Your task to perform on an android device: make emails show in primary in the gmail app Image 0: 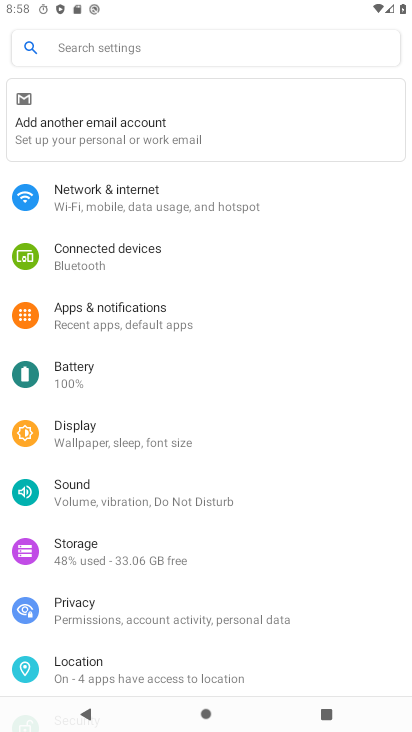
Step 0: press home button
Your task to perform on an android device: make emails show in primary in the gmail app Image 1: 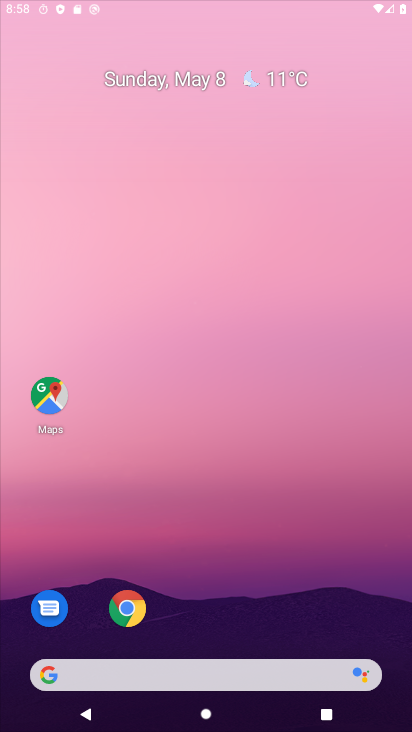
Step 1: drag from (259, 669) to (192, 70)
Your task to perform on an android device: make emails show in primary in the gmail app Image 2: 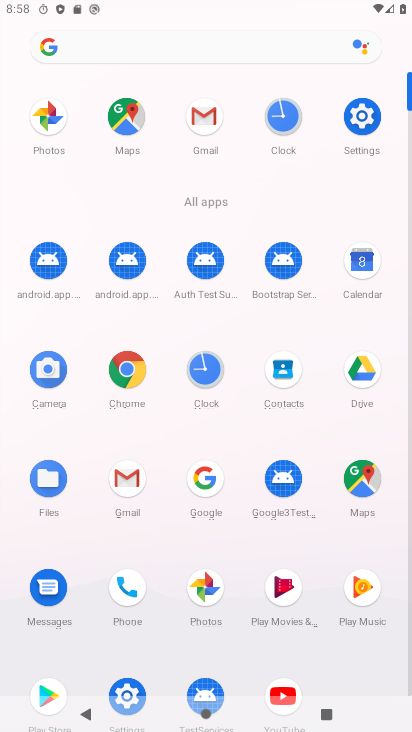
Step 2: click (132, 486)
Your task to perform on an android device: make emails show in primary in the gmail app Image 3: 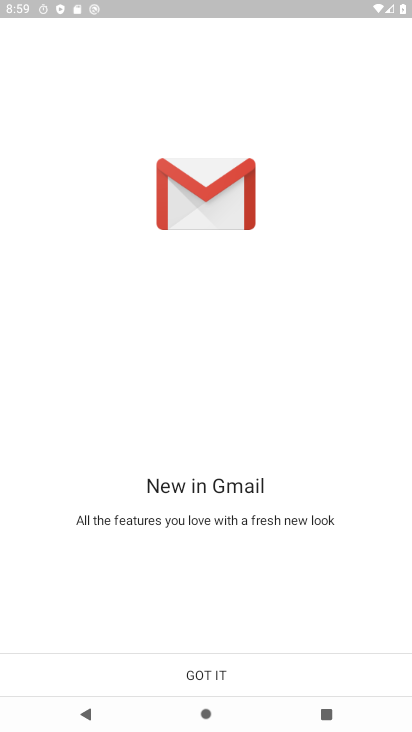
Step 3: click (197, 670)
Your task to perform on an android device: make emails show in primary in the gmail app Image 4: 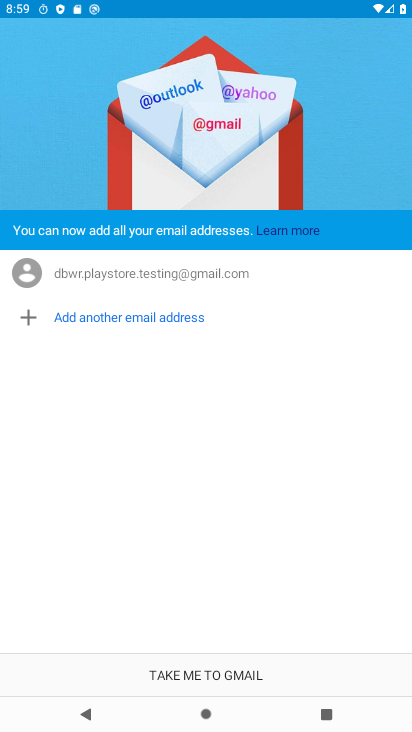
Step 4: click (239, 675)
Your task to perform on an android device: make emails show in primary in the gmail app Image 5: 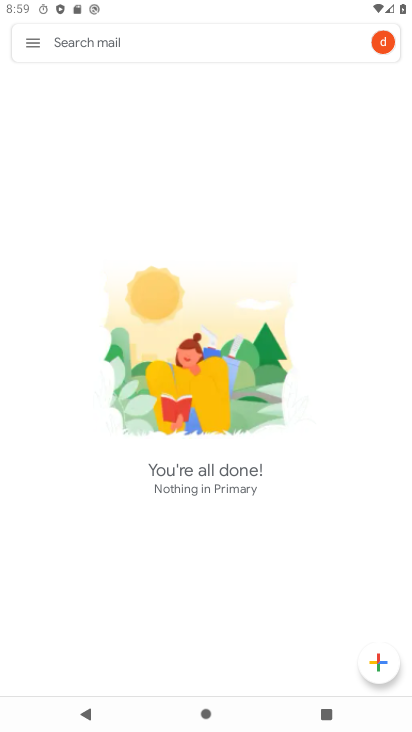
Step 5: click (31, 41)
Your task to perform on an android device: make emails show in primary in the gmail app Image 6: 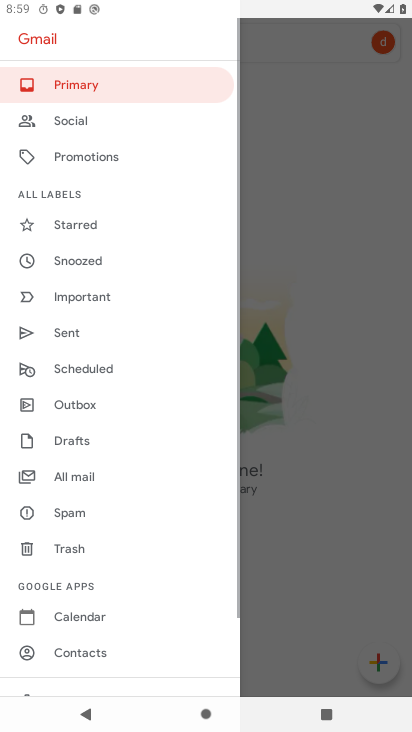
Step 6: drag from (188, 607) to (169, 126)
Your task to perform on an android device: make emails show in primary in the gmail app Image 7: 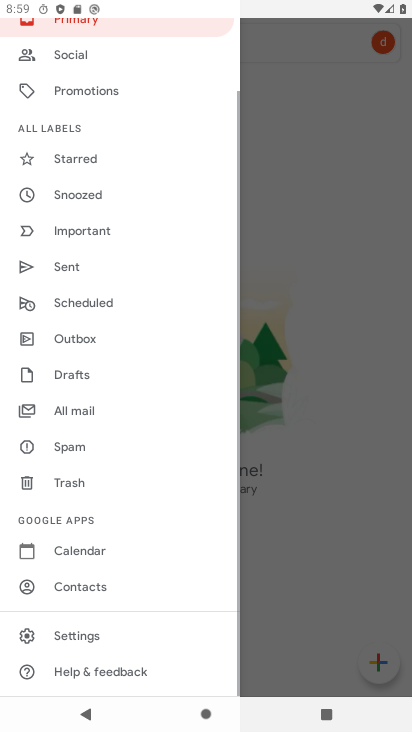
Step 7: click (107, 644)
Your task to perform on an android device: make emails show in primary in the gmail app Image 8: 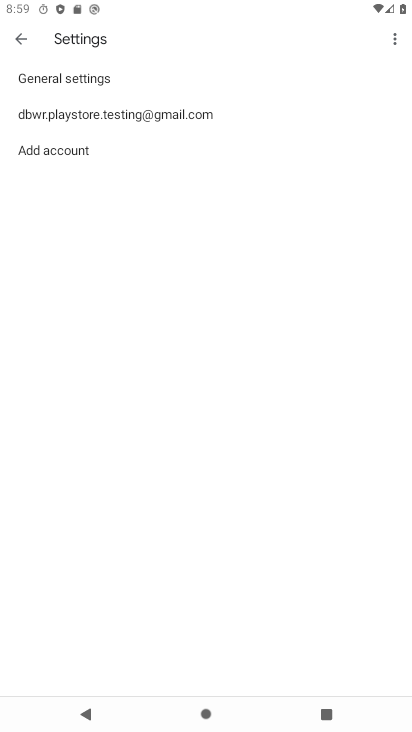
Step 8: click (123, 117)
Your task to perform on an android device: make emails show in primary in the gmail app Image 9: 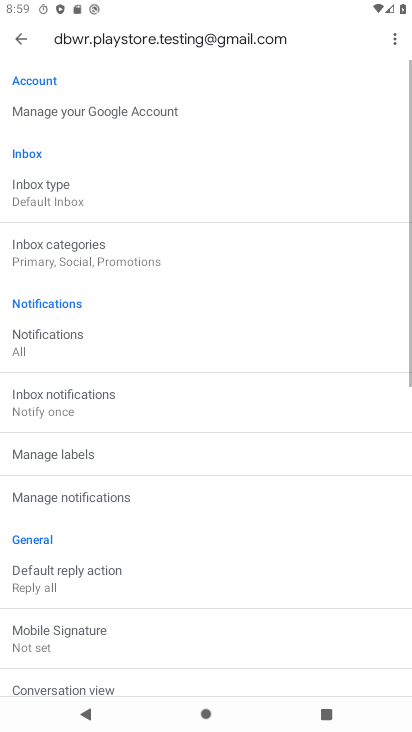
Step 9: click (86, 190)
Your task to perform on an android device: make emails show in primary in the gmail app Image 10: 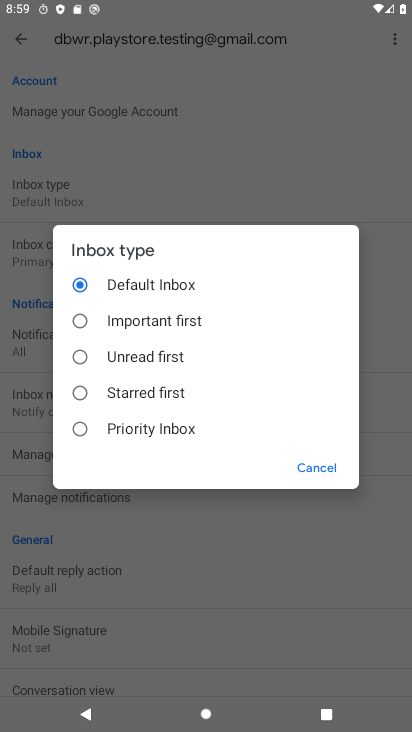
Step 10: click (29, 277)
Your task to perform on an android device: make emails show in primary in the gmail app Image 11: 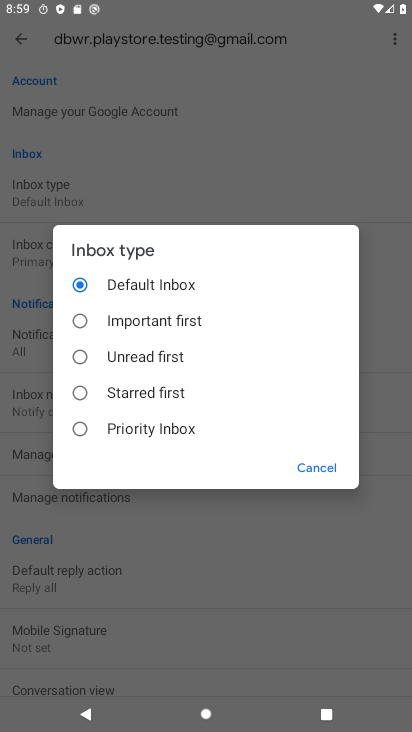
Step 11: click (318, 473)
Your task to perform on an android device: make emails show in primary in the gmail app Image 12: 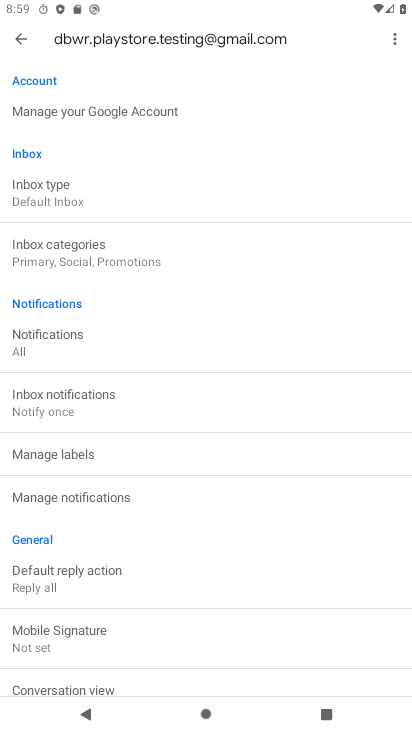
Step 12: click (101, 259)
Your task to perform on an android device: make emails show in primary in the gmail app Image 13: 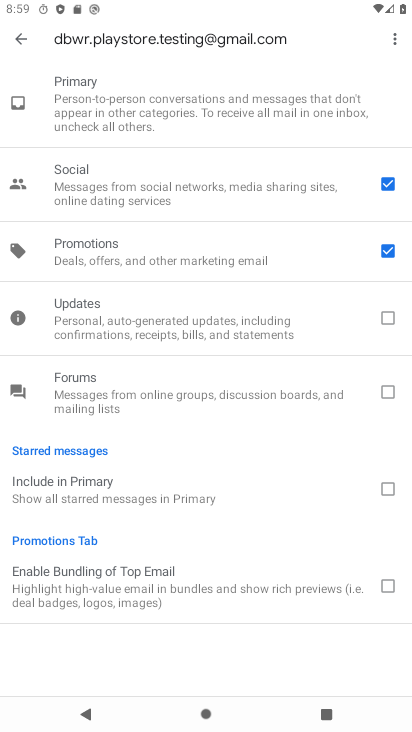
Step 13: click (384, 249)
Your task to perform on an android device: make emails show in primary in the gmail app Image 14: 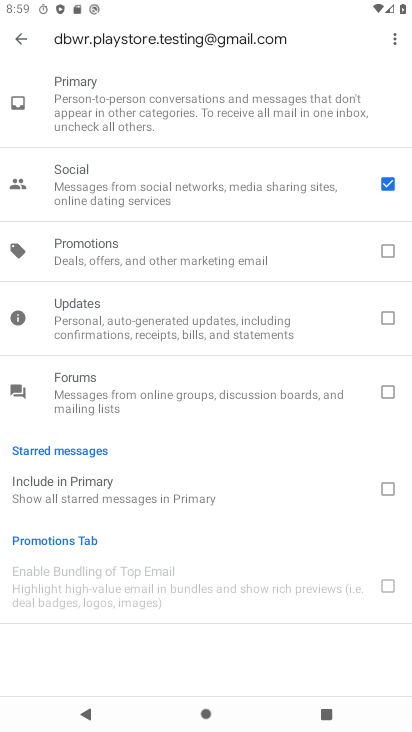
Step 14: click (383, 180)
Your task to perform on an android device: make emails show in primary in the gmail app Image 15: 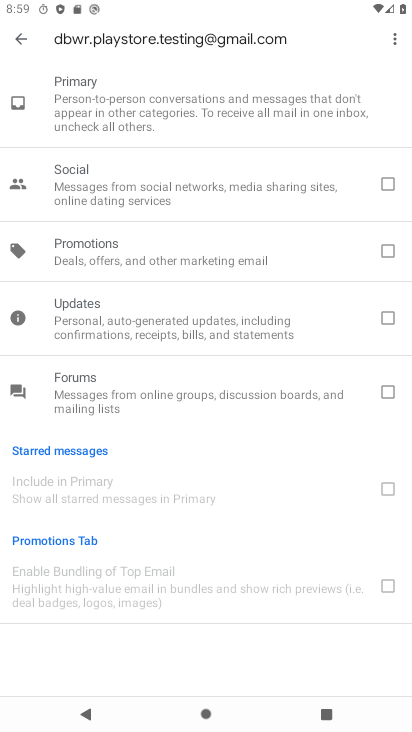
Step 15: press back button
Your task to perform on an android device: make emails show in primary in the gmail app Image 16: 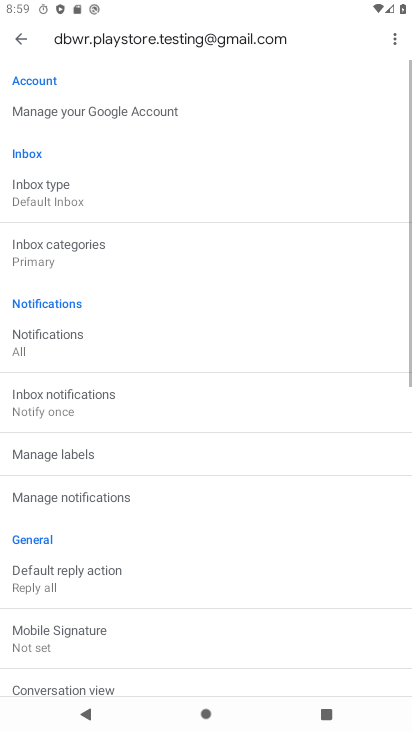
Step 16: press back button
Your task to perform on an android device: make emails show in primary in the gmail app Image 17: 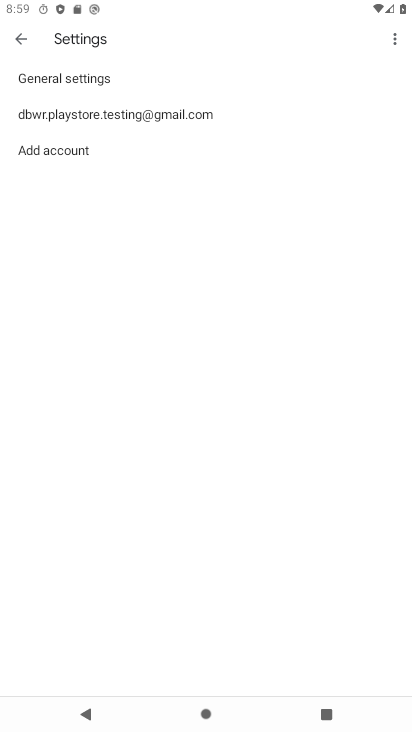
Step 17: press back button
Your task to perform on an android device: make emails show in primary in the gmail app Image 18: 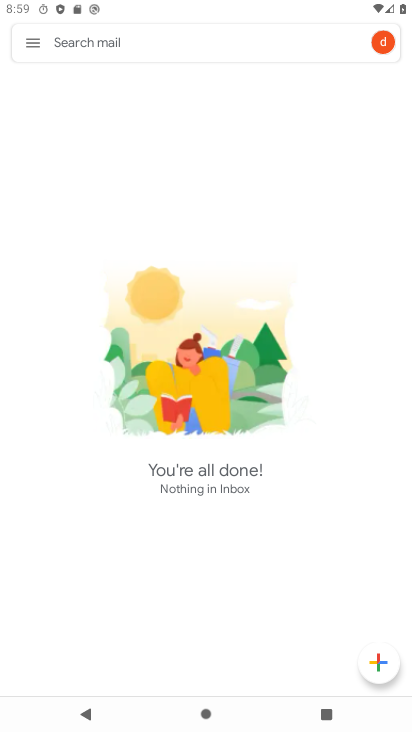
Step 18: click (26, 37)
Your task to perform on an android device: make emails show in primary in the gmail app Image 19: 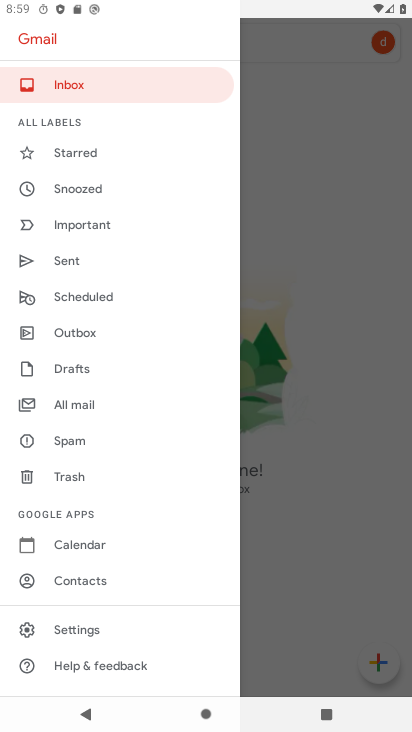
Step 19: task complete